Your task to perform on an android device: empty trash in google photos Image 0: 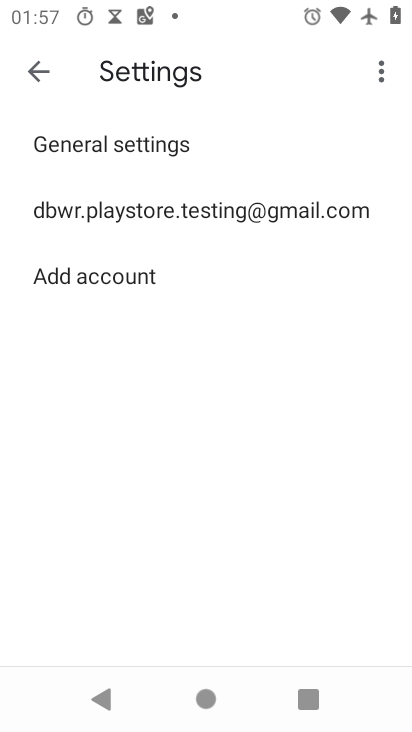
Step 0: press home button
Your task to perform on an android device: empty trash in google photos Image 1: 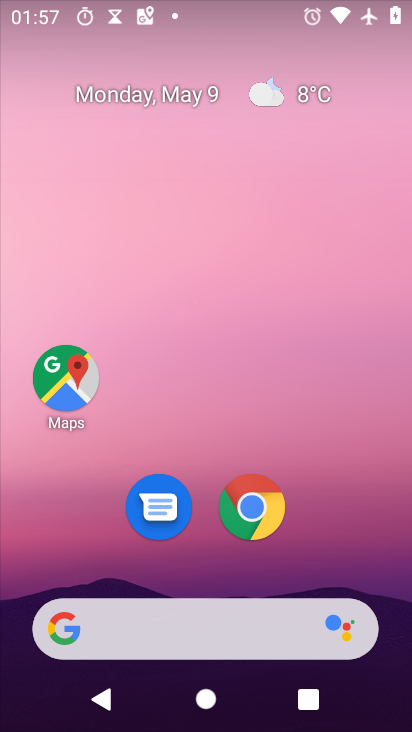
Step 1: drag from (223, 724) to (233, 140)
Your task to perform on an android device: empty trash in google photos Image 2: 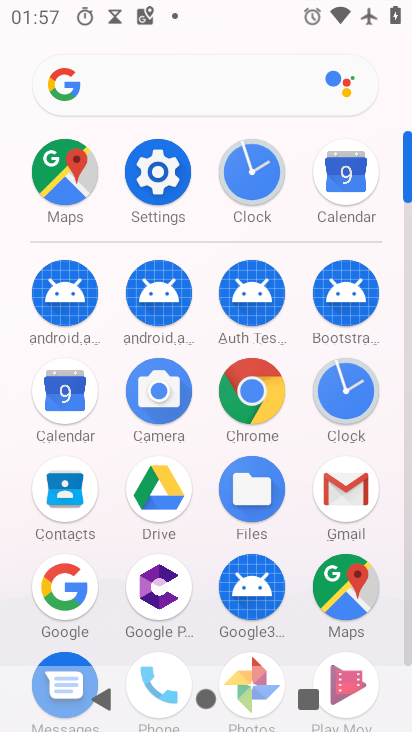
Step 2: click (249, 662)
Your task to perform on an android device: empty trash in google photos Image 3: 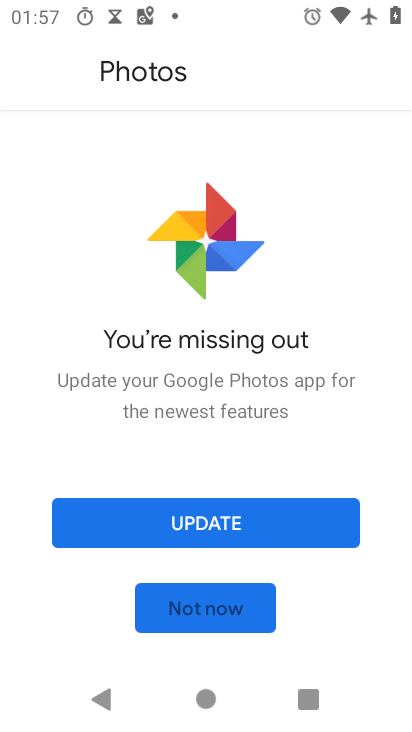
Step 3: click (228, 609)
Your task to perform on an android device: empty trash in google photos Image 4: 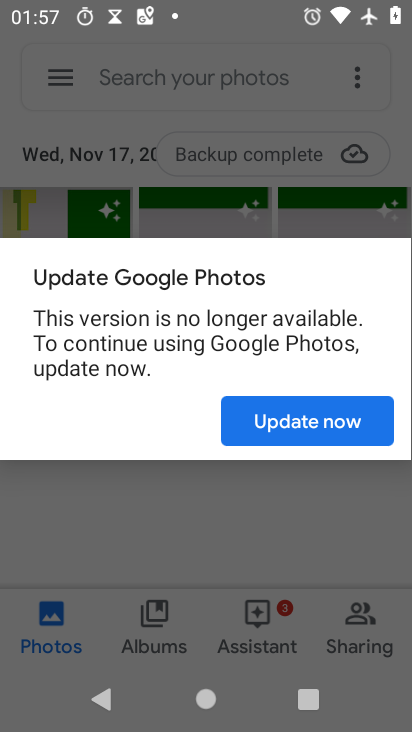
Step 4: task complete